Your task to perform on an android device: Open eBay Image 0: 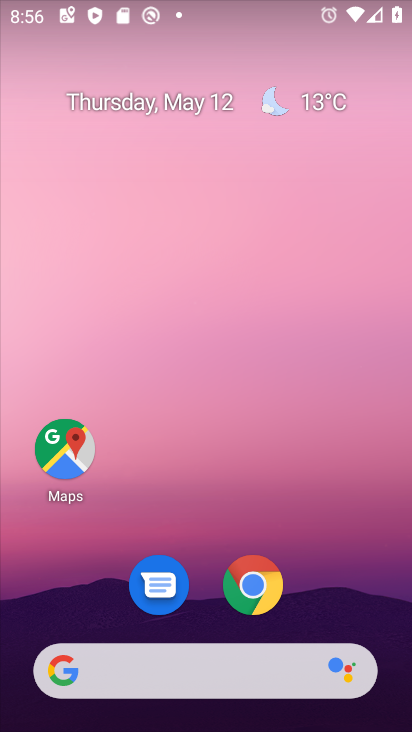
Step 0: click (210, 678)
Your task to perform on an android device: Open eBay Image 1: 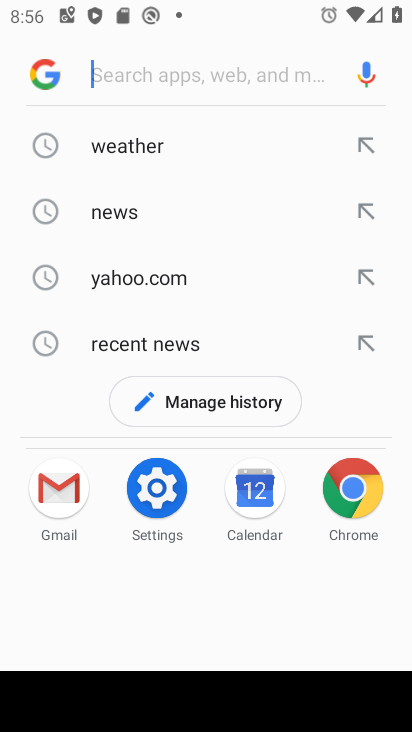
Step 1: type "ebay"
Your task to perform on an android device: Open eBay Image 2: 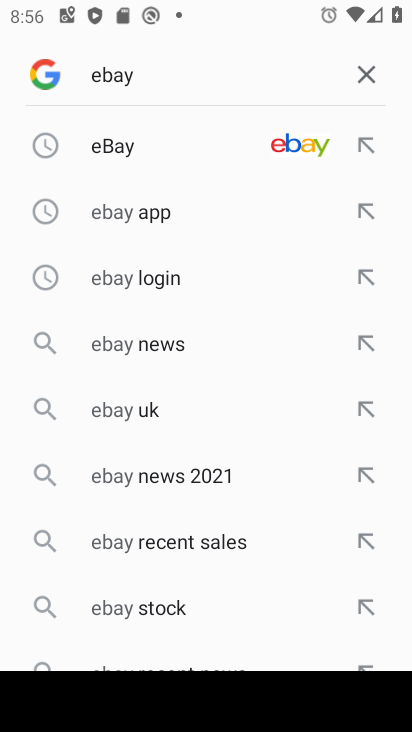
Step 2: click (111, 142)
Your task to perform on an android device: Open eBay Image 3: 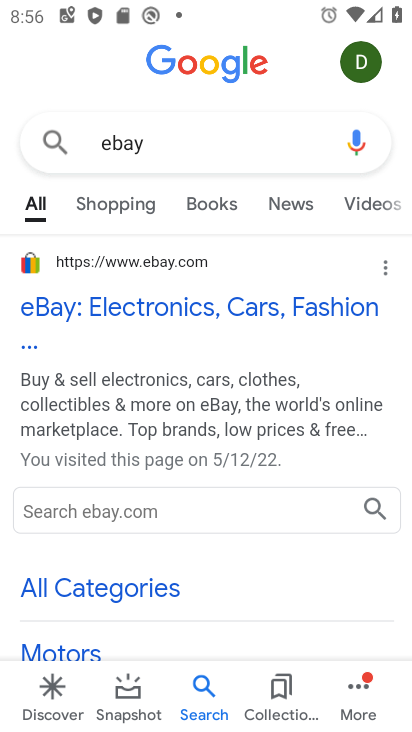
Step 3: click (60, 299)
Your task to perform on an android device: Open eBay Image 4: 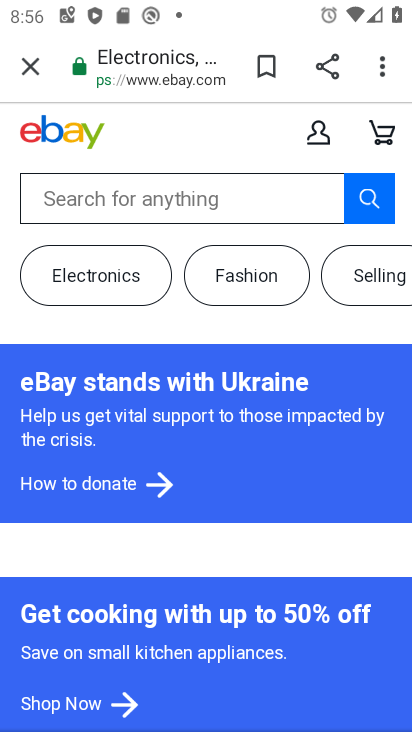
Step 4: task complete